Your task to perform on an android device: open app "WhatsApp Messenger" Image 0: 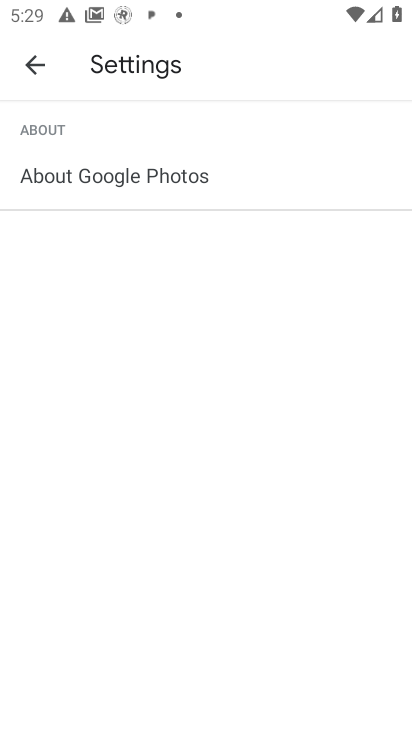
Step 0: press home button
Your task to perform on an android device: open app "WhatsApp Messenger" Image 1: 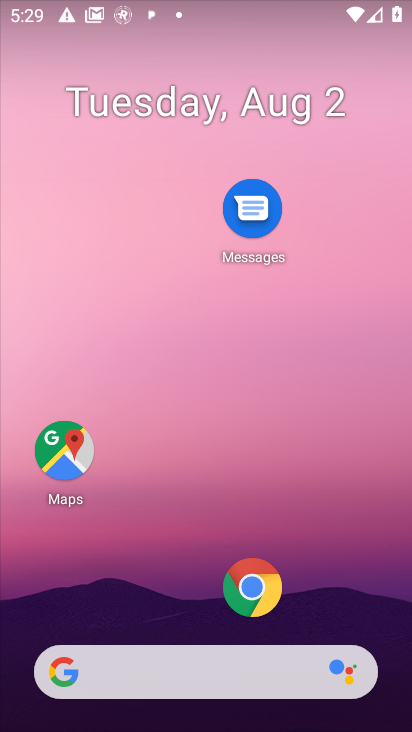
Step 1: drag from (174, 594) to (110, 132)
Your task to perform on an android device: open app "WhatsApp Messenger" Image 2: 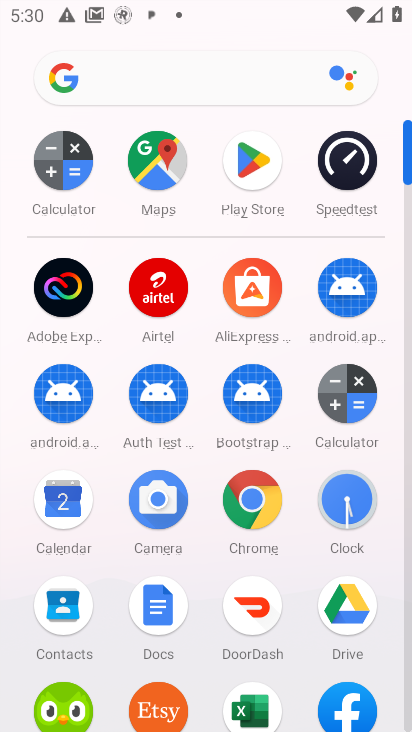
Step 2: click (242, 175)
Your task to perform on an android device: open app "WhatsApp Messenger" Image 3: 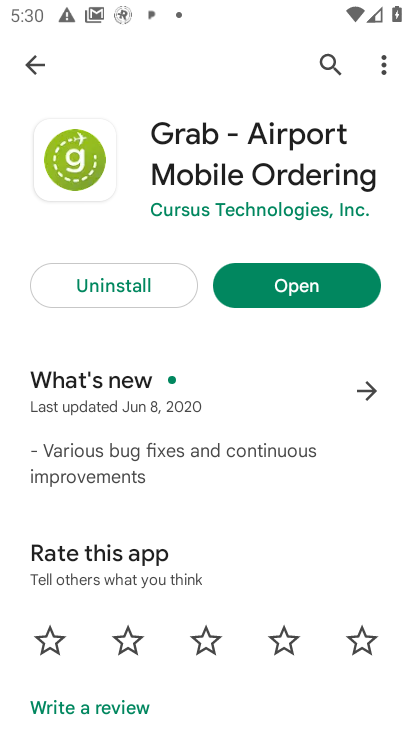
Step 3: click (318, 61)
Your task to perform on an android device: open app "WhatsApp Messenger" Image 4: 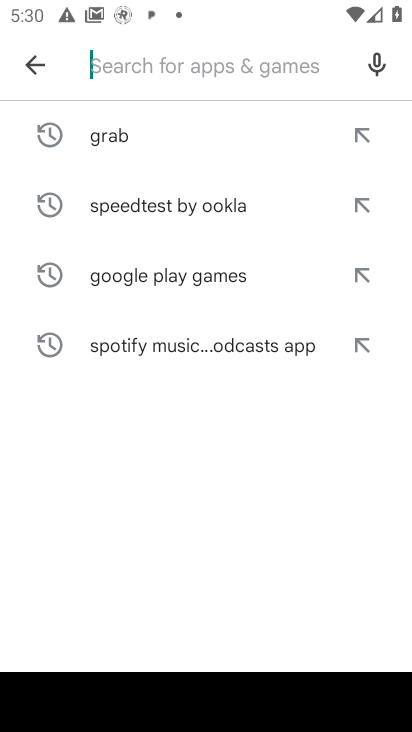
Step 4: type "WhatsApp Messenge"
Your task to perform on an android device: open app "WhatsApp Messenger" Image 5: 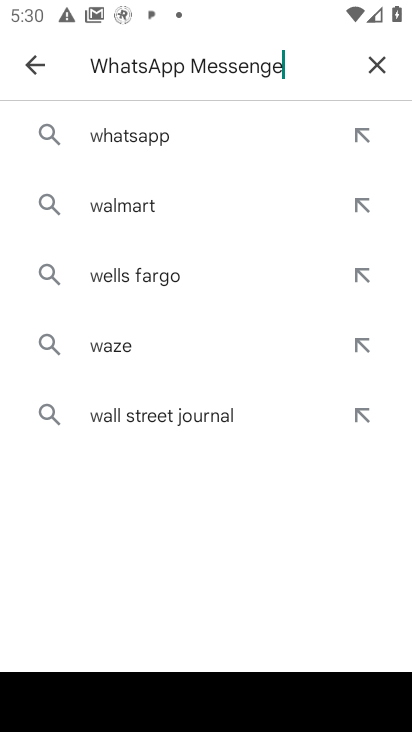
Step 5: type ""
Your task to perform on an android device: open app "WhatsApp Messenger" Image 6: 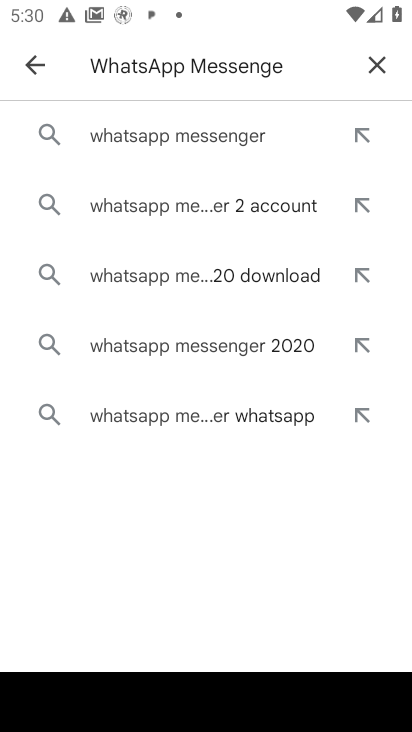
Step 6: click (235, 125)
Your task to perform on an android device: open app "WhatsApp Messenger" Image 7: 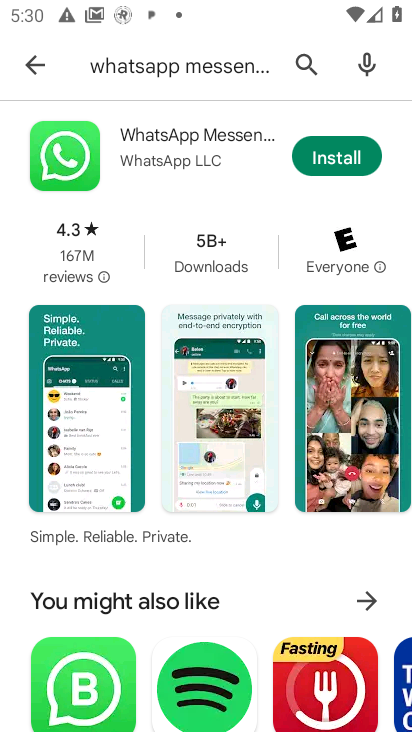
Step 7: task complete